Your task to perform on an android device: turn on airplane mode Image 0: 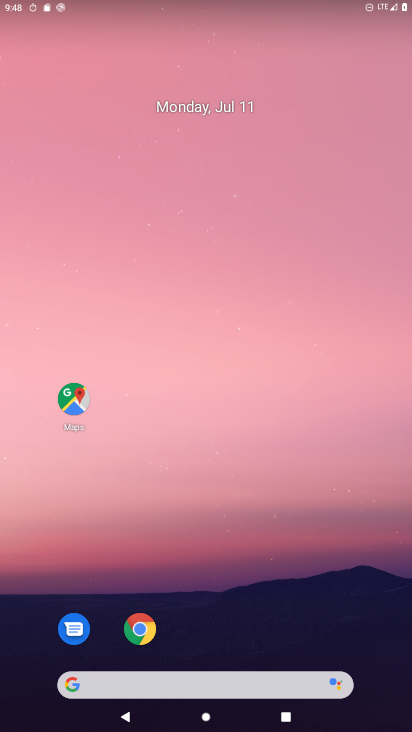
Step 0: drag from (176, 424) to (166, 668)
Your task to perform on an android device: turn on airplane mode Image 1: 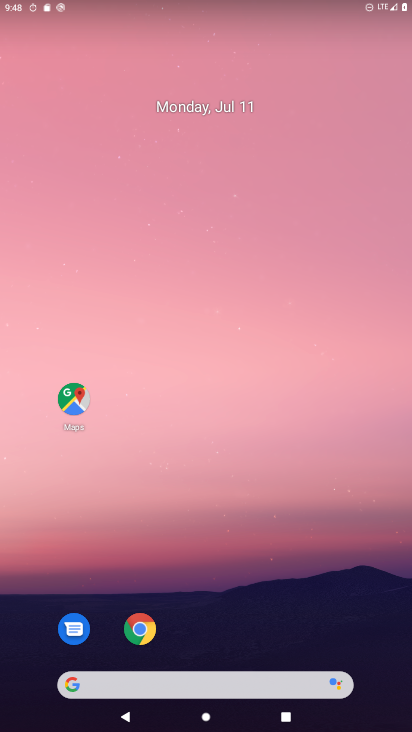
Step 1: drag from (343, 4) to (340, 533)
Your task to perform on an android device: turn on airplane mode Image 2: 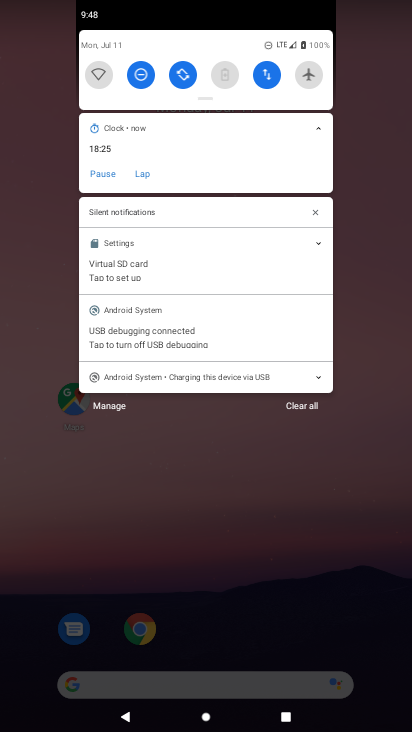
Step 2: click (307, 76)
Your task to perform on an android device: turn on airplane mode Image 3: 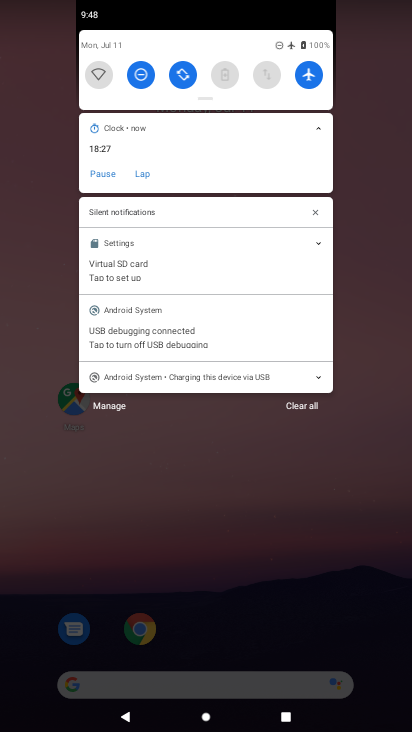
Step 3: task complete